Your task to perform on an android device: Search for Italian restaurants on Maps Image 0: 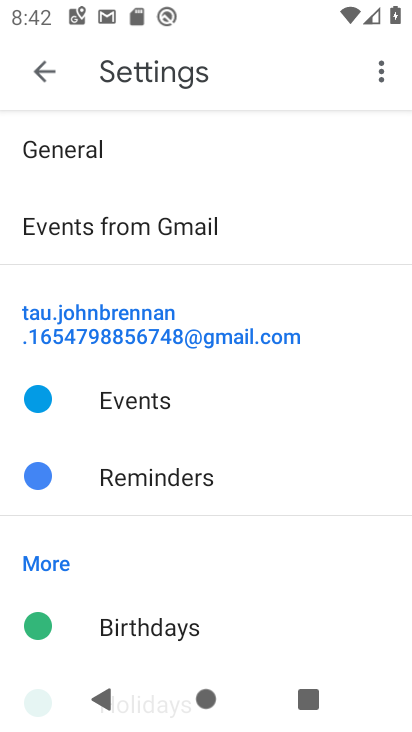
Step 0: press home button
Your task to perform on an android device: Search for Italian restaurants on Maps Image 1: 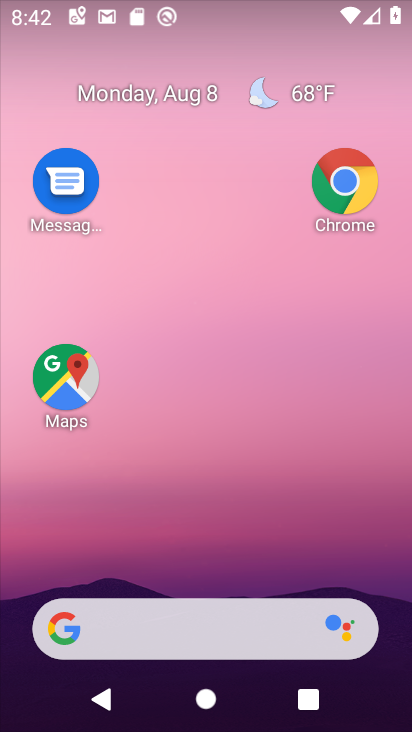
Step 1: click (61, 376)
Your task to perform on an android device: Search for Italian restaurants on Maps Image 2: 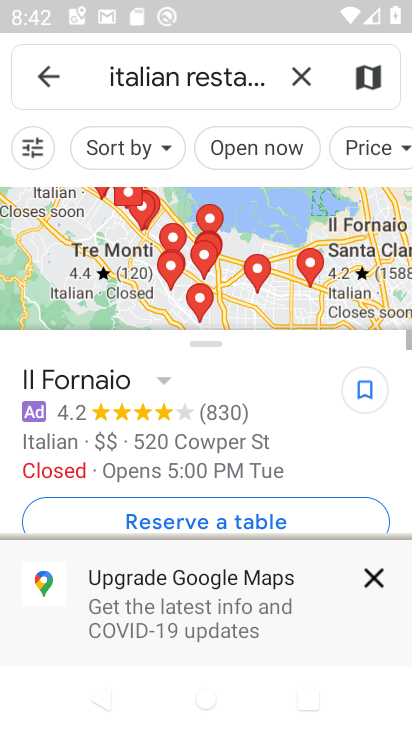
Step 2: task complete